Your task to perform on an android device: delete a single message in the gmail app Image 0: 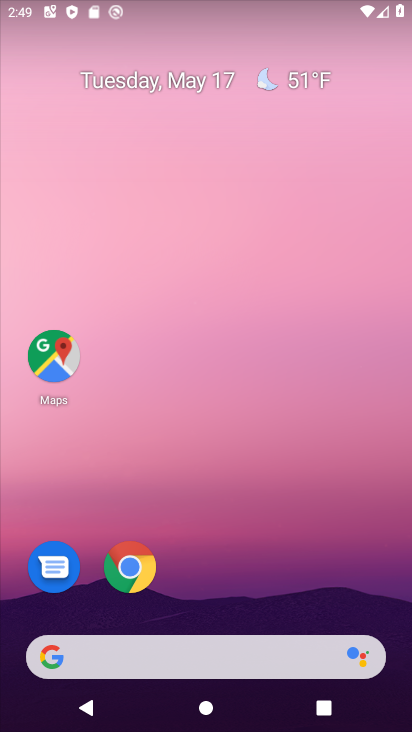
Step 0: drag from (204, 656) to (226, 98)
Your task to perform on an android device: delete a single message in the gmail app Image 1: 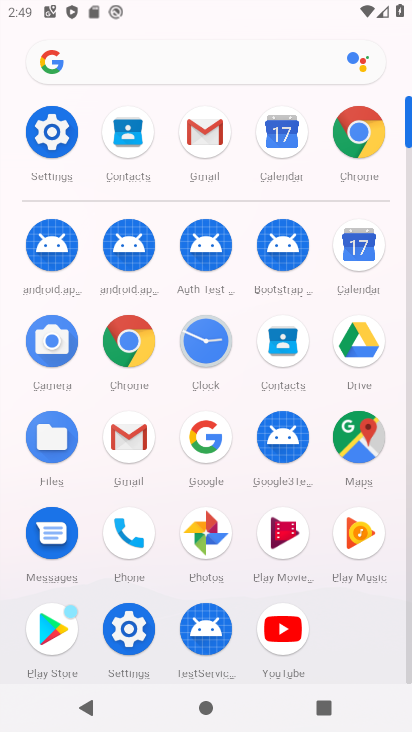
Step 1: click (127, 444)
Your task to perform on an android device: delete a single message in the gmail app Image 2: 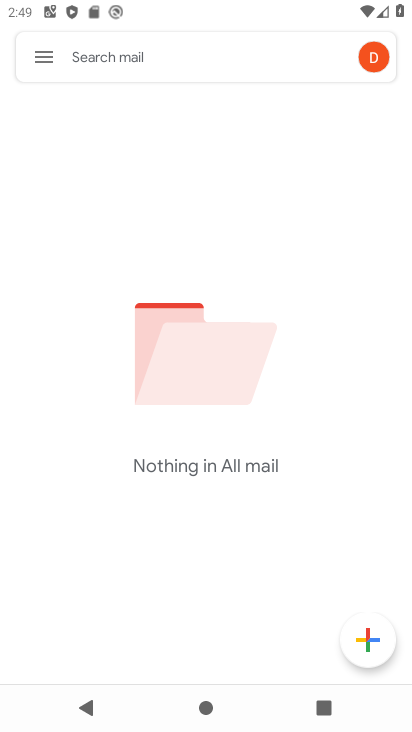
Step 2: task complete